Your task to perform on an android device: refresh tabs in the chrome app Image 0: 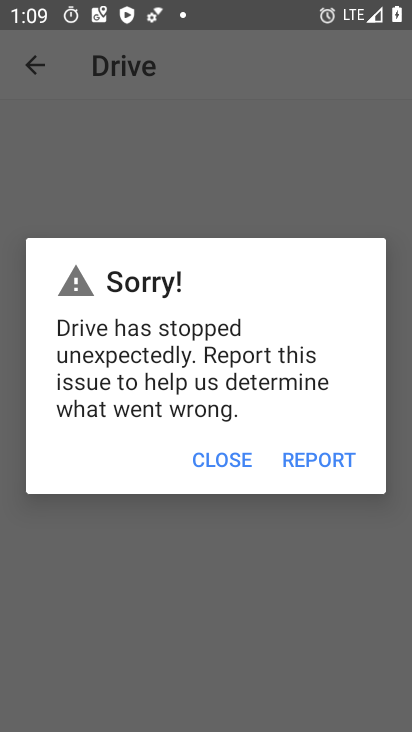
Step 0: press home button
Your task to perform on an android device: refresh tabs in the chrome app Image 1: 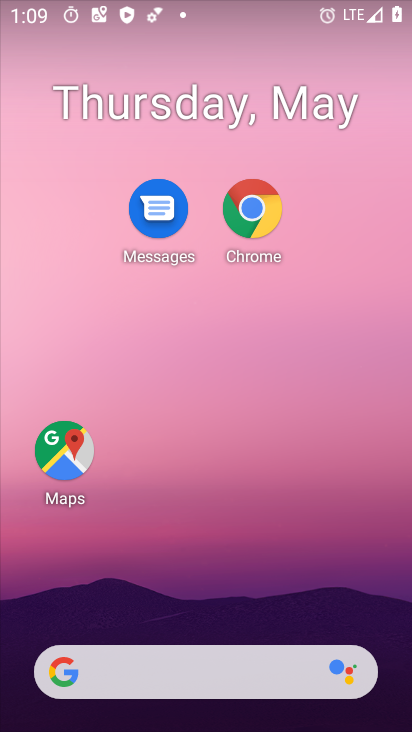
Step 1: click (257, 211)
Your task to perform on an android device: refresh tabs in the chrome app Image 2: 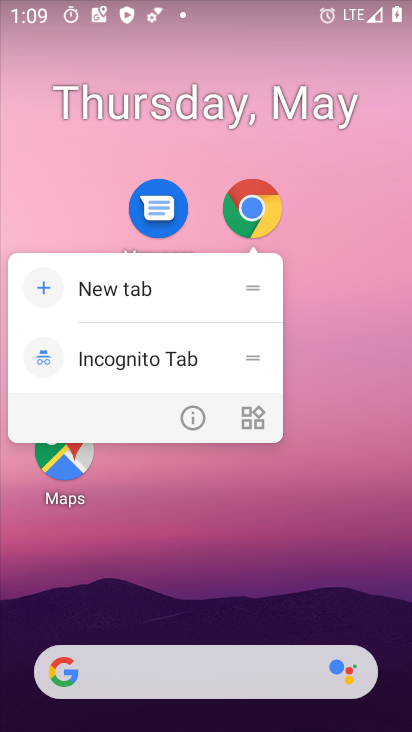
Step 2: click (244, 209)
Your task to perform on an android device: refresh tabs in the chrome app Image 3: 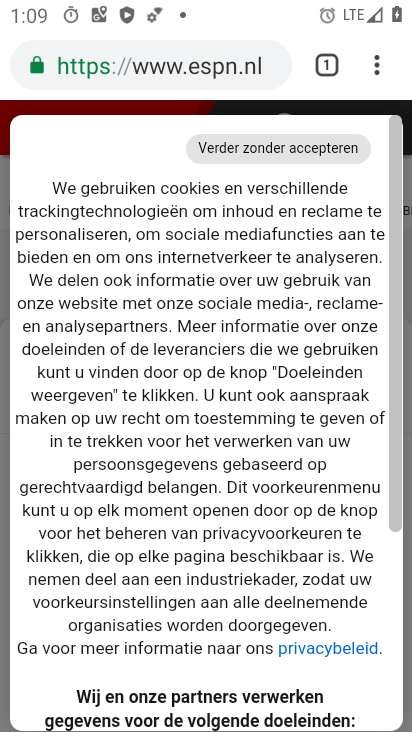
Step 3: click (375, 71)
Your task to perform on an android device: refresh tabs in the chrome app Image 4: 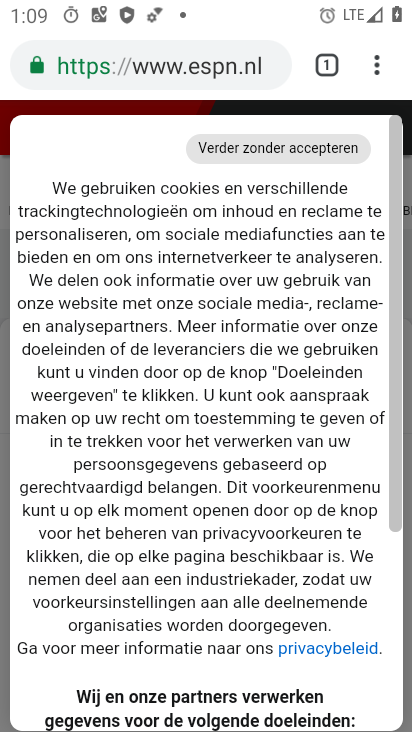
Step 4: click (377, 69)
Your task to perform on an android device: refresh tabs in the chrome app Image 5: 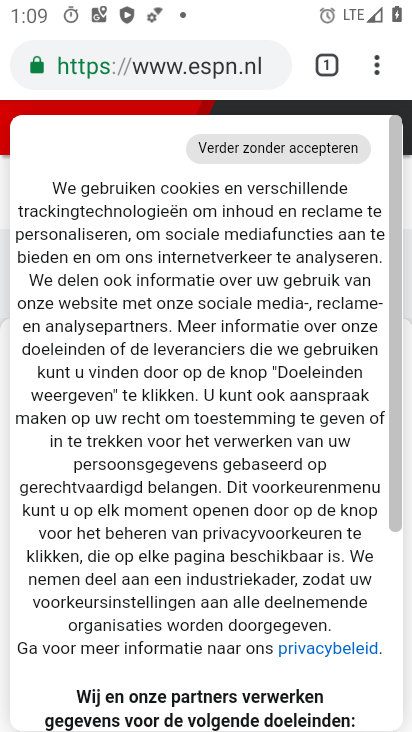
Step 5: click (378, 68)
Your task to perform on an android device: refresh tabs in the chrome app Image 6: 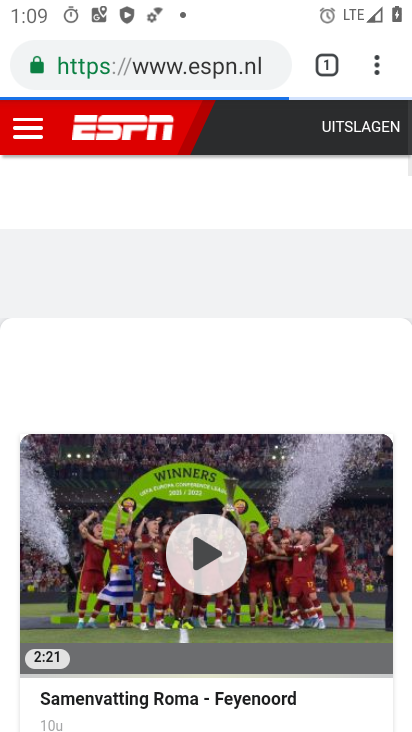
Step 6: click (377, 67)
Your task to perform on an android device: refresh tabs in the chrome app Image 7: 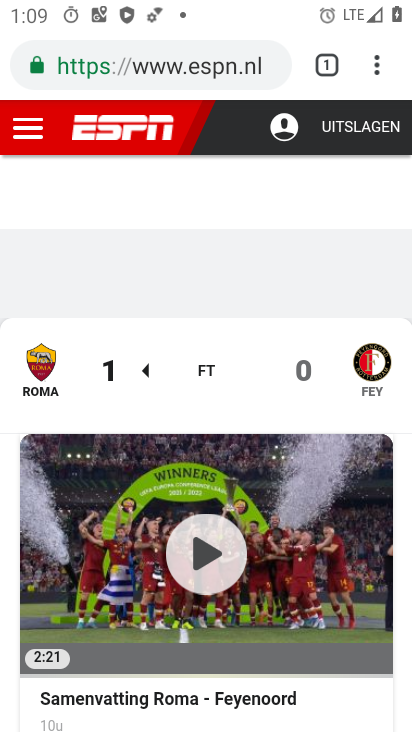
Step 7: click (374, 67)
Your task to perform on an android device: refresh tabs in the chrome app Image 8: 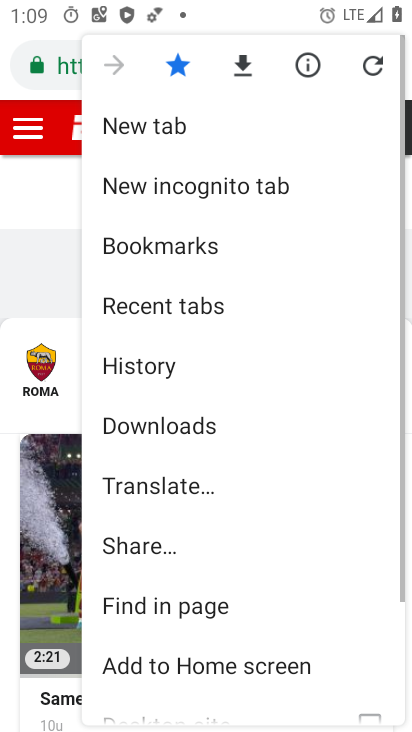
Step 8: click (376, 61)
Your task to perform on an android device: refresh tabs in the chrome app Image 9: 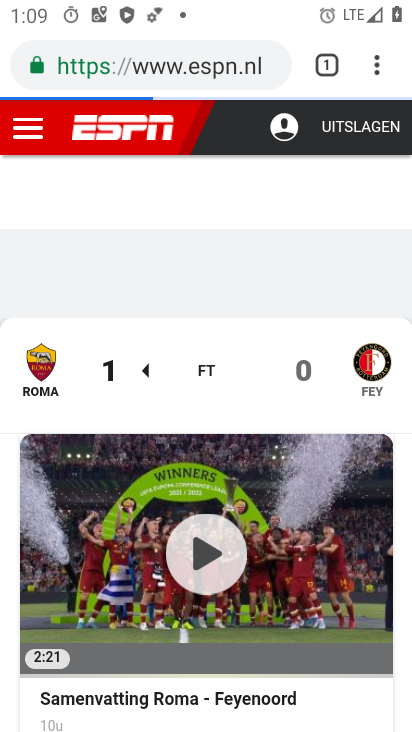
Step 9: click (378, 64)
Your task to perform on an android device: refresh tabs in the chrome app Image 10: 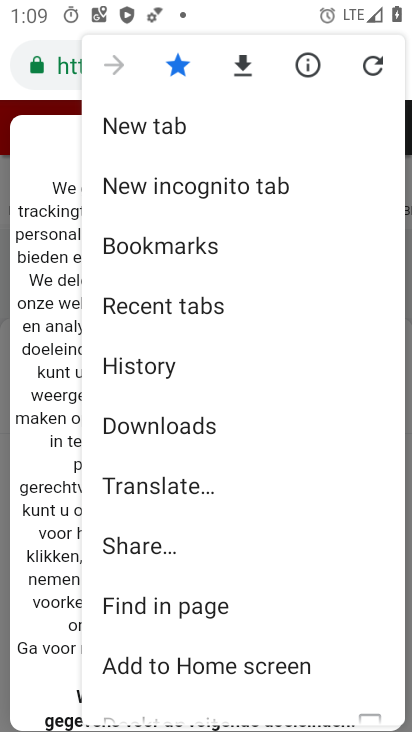
Step 10: click (374, 75)
Your task to perform on an android device: refresh tabs in the chrome app Image 11: 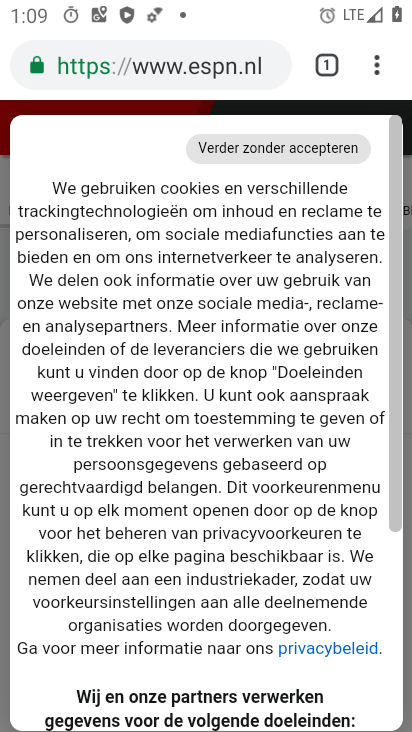
Step 11: task complete